Your task to perform on an android device: Open settings on Google Maps Image 0: 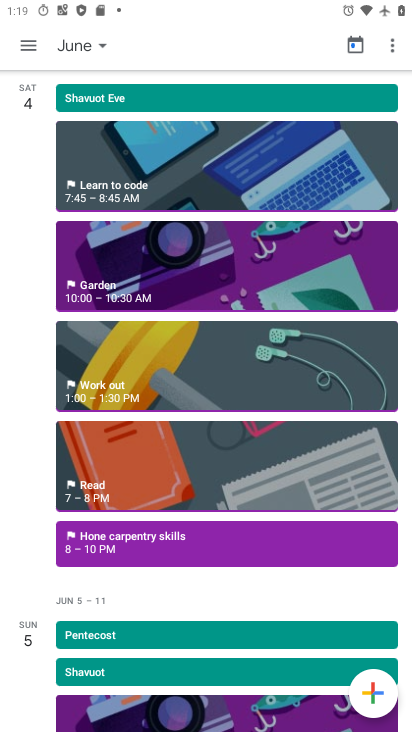
Step 0: press home button
Your task to perform on an android device: Open settings on Google Maps Image 1: 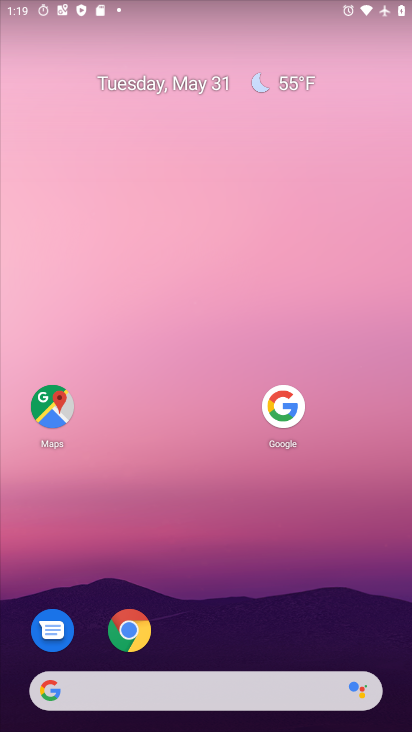
Step 1: click (50, 415)
Your task to perform on an android device: Open settings on Google Maps Image 2: 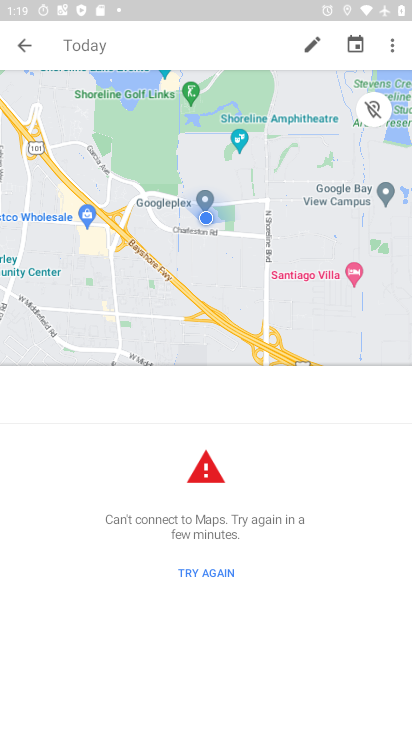
Step 2: drag from (227, 399) to (260, 581)
Your task to perform on an android device: Open settings on Google Maps Image 3: 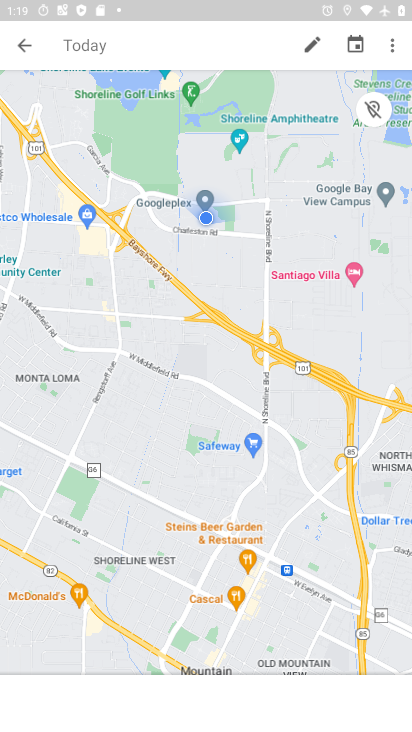
Step 3: click (21, 39)
Your task to perform on an android device: Open settings on Google Maps Image 4: 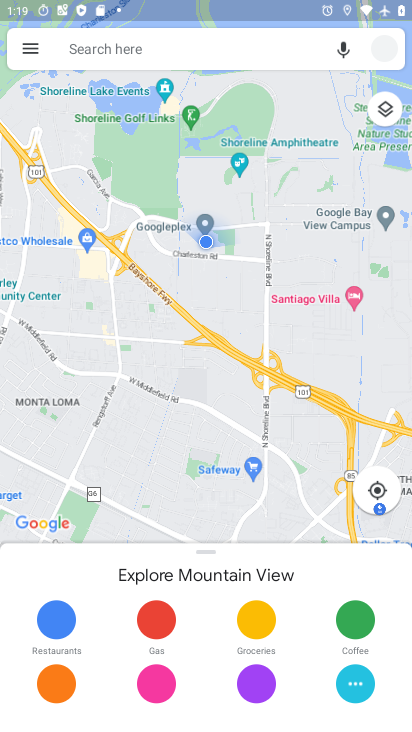
Step 4: click (32, 50)
Your task to perform on an android device: Open settings on Google Maps Image 5: 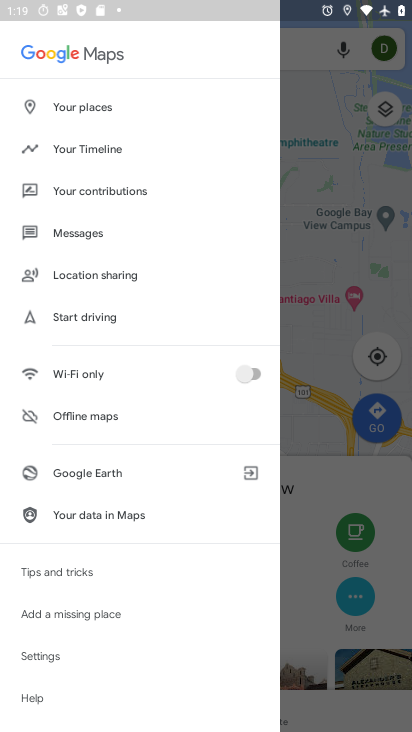
Step 5: drag from (110, 638) to (140, 226)
Your task to perform on an android device: Open settings on Google Maps Image 6: 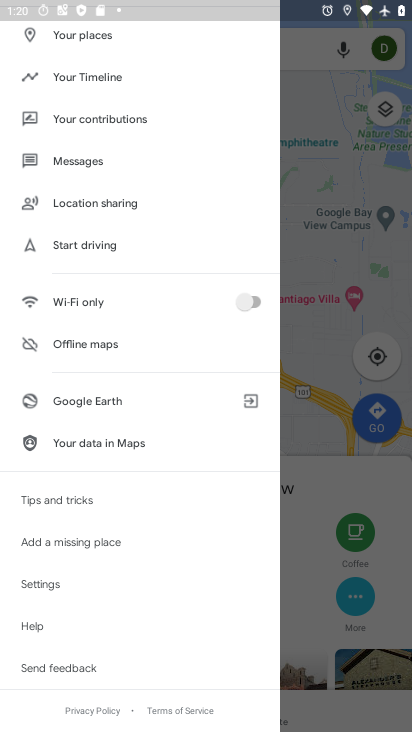
Step 6: click (44, 582)
Your task to perform on an android device: Open settings on Google Maps Image 7: 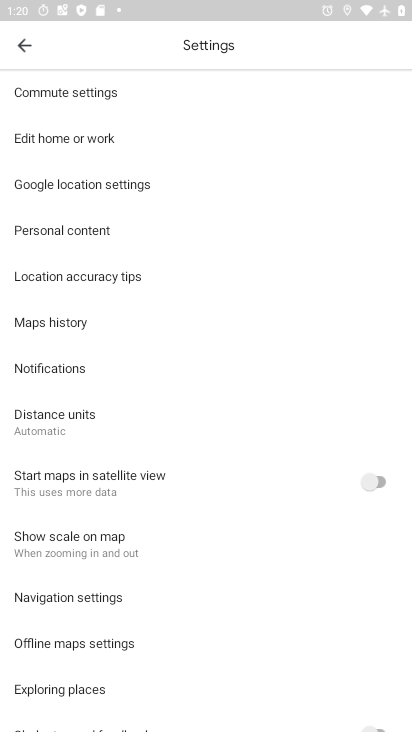
Step 7: task complete